Your task to perform on an android device: toggle notification dots Image 0: 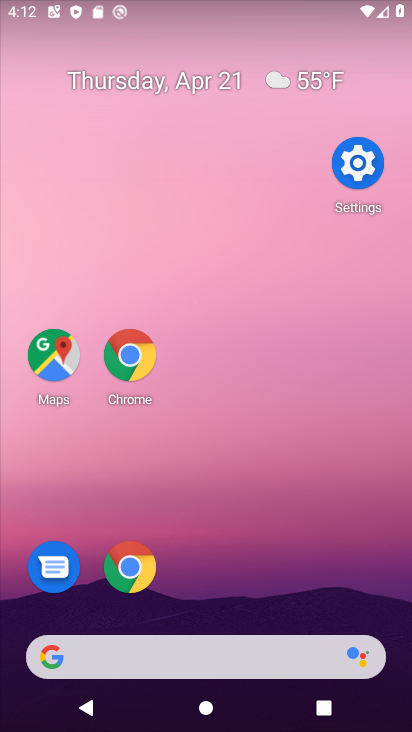
Step 0: click (223, 92)
Your task to perform on an android device: toggle notification dots Image 1: 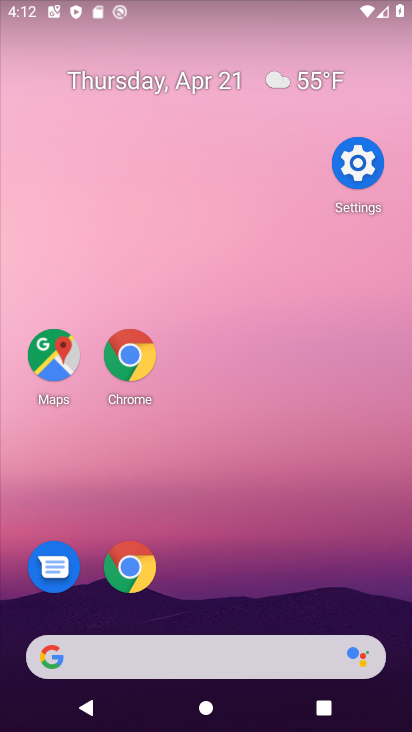
Step 1: drag from (257, 633) to (280, 17)
Your task to perform on an android device: toggle notification dots Image 2: 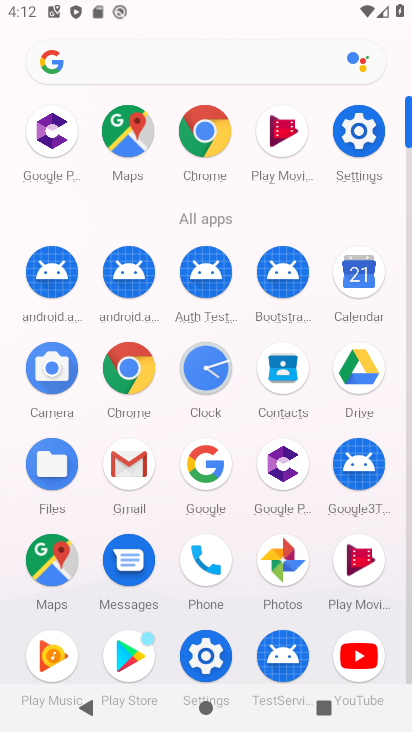
Step 2: drag from (246, 457) to (169, 24)
Your task to perform on an android device: toggle notification dots Image 3: 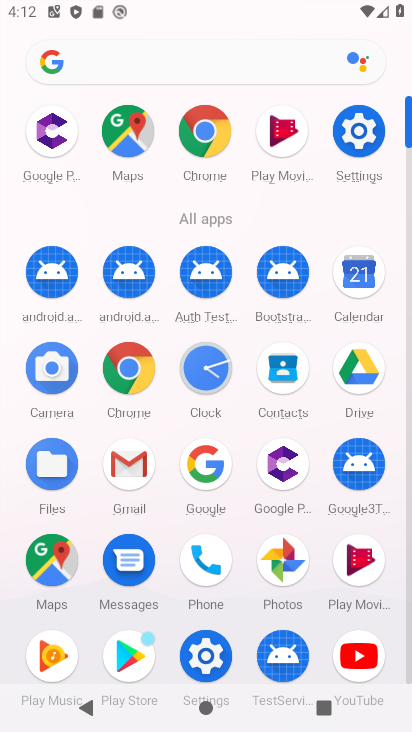
Step 3: click (351, 127)
Your task to perform on an android device: toggle notification dots Image 4: 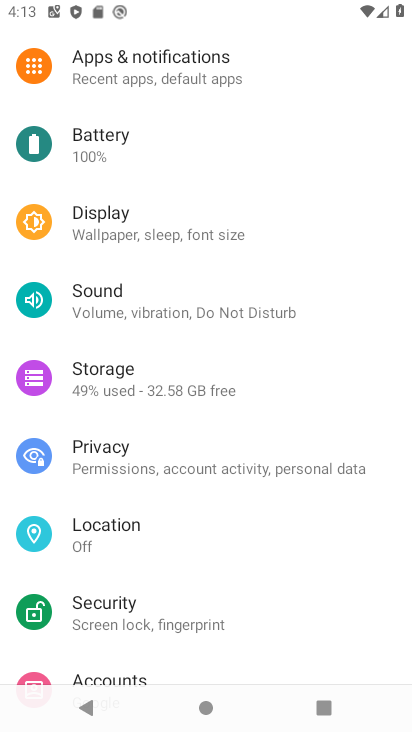
Step 4: click (156, 66)
Your task to perform on an android device: toggle notification dots Image 5: 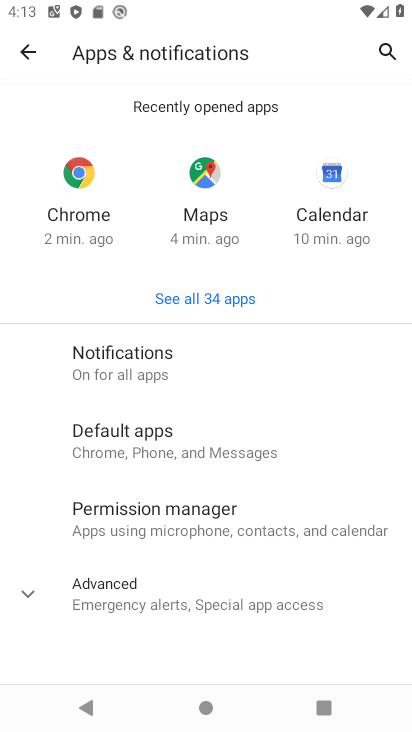
Step 5: drag from (165, 531) to (155, 177)
Your task to perform on an android device: toggle notification dots Image 6: 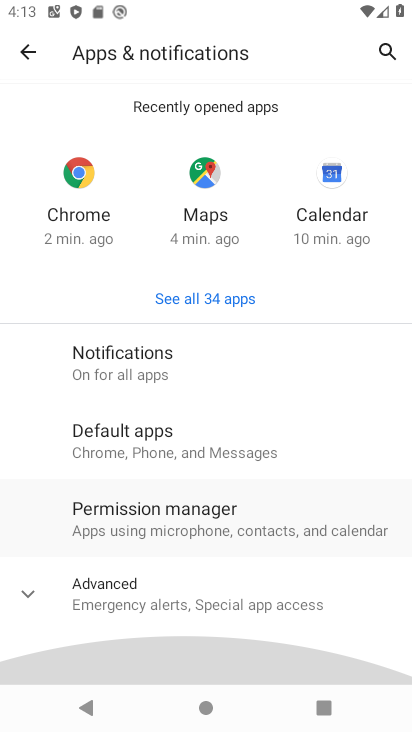
Step 6: drag from (253, 521) to (269, 235)
Your task to perform on an android device: toggle notification dots Image 7: 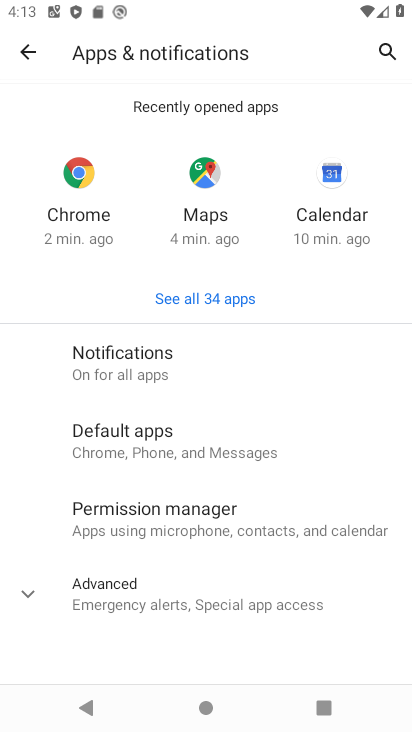
Step 7: click (122, 363)
Your task to perform on an android device: toggle notification dots Image 8: 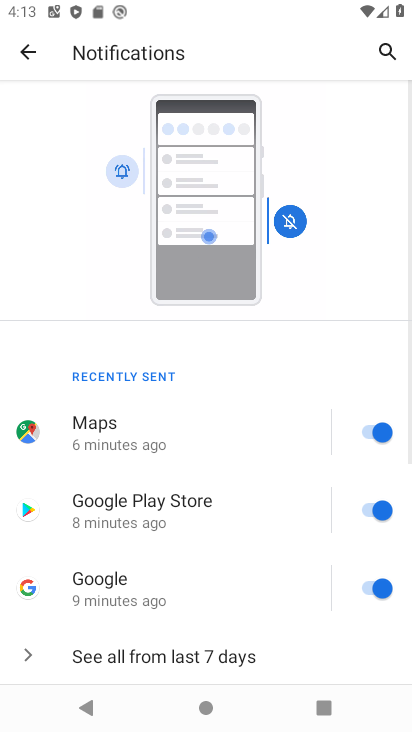
Step 8: drag from (229, 525) to (216, 196)
Your task to perform on an android device: toggle notification dots Image 9: 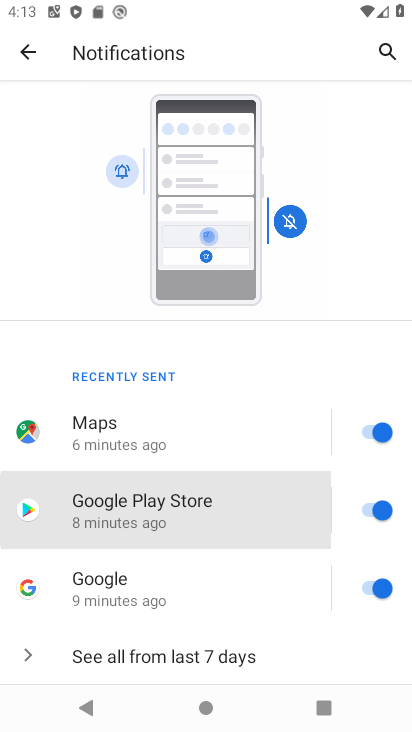
Step 9: drag from (196, 282) to (191, 161)
Your task to perform on an android device: toggle notification dots Image 10: 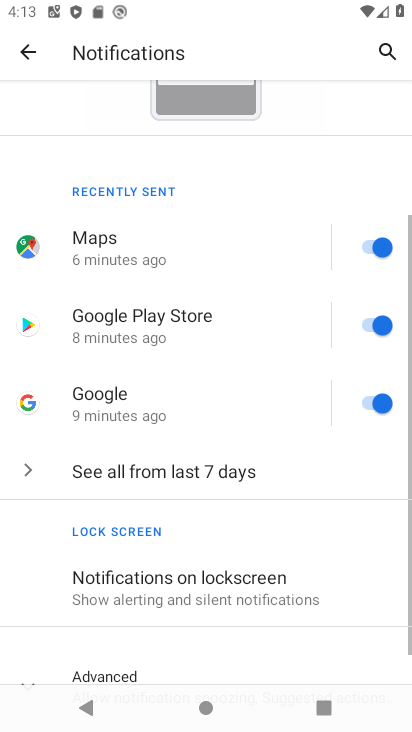
Step 10: drag from (220, 374) to (213, 112)
Your task to perform on an android device: toggle notification dots Image 11: 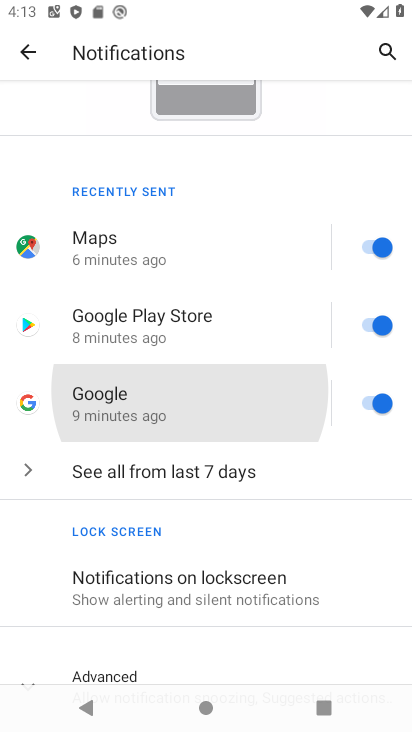
Step 11: click (241, 29)
Your task to perform on an android device: toggle notification dots Image 12: 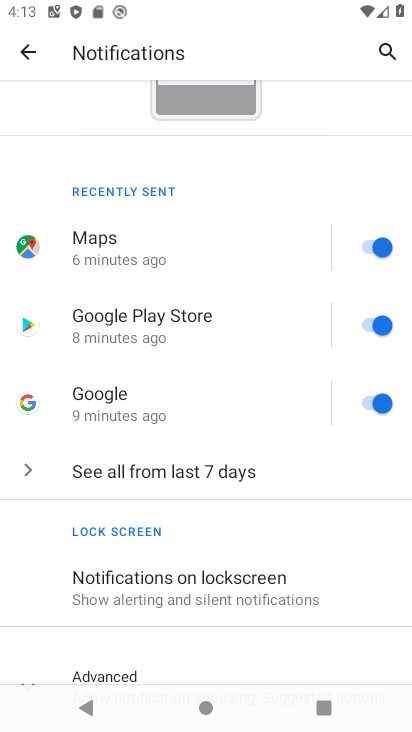
Step 12: drag from (229, 426) to (235, 151)
Your task to perform on an android device: toggle notification dots Image 13: 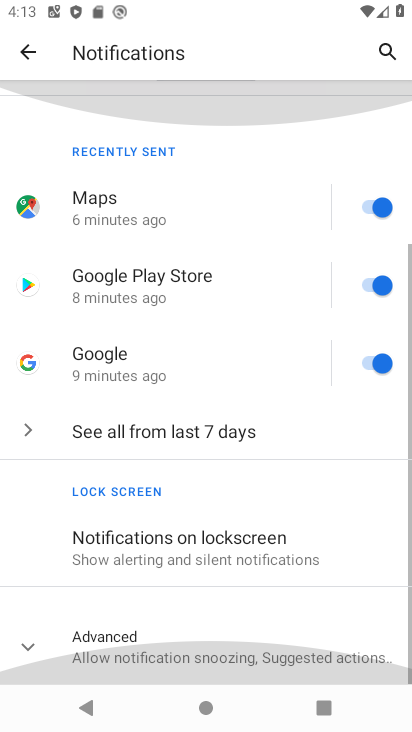
Step 13: drag from (265, 406) to (250, 201)
Your task to perform on an android device: toggle notification dots Image 14: 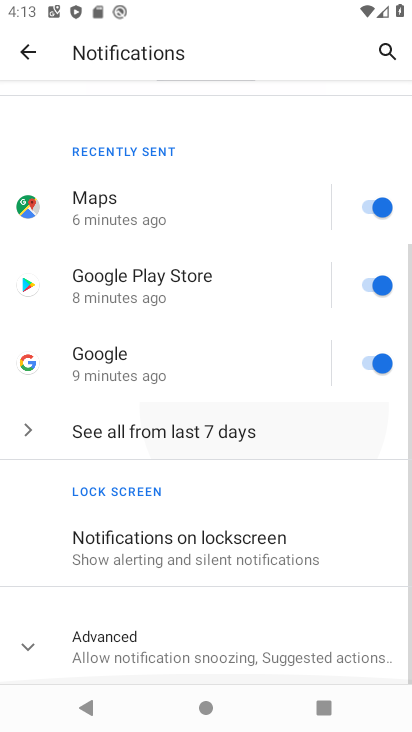
Step 14: drag from (218, 454) to (180, 121)
Your task to perform on an android device: toggle notification dots Image 15: 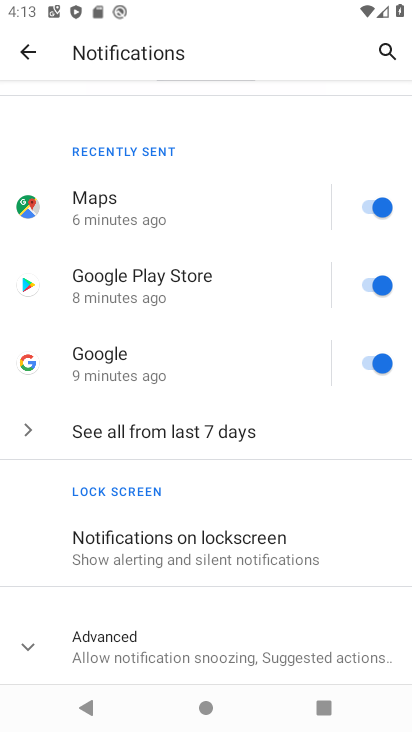
Step 15: click (135, 655)
Your task to perform on an android device: toggle notification dots Image 16: 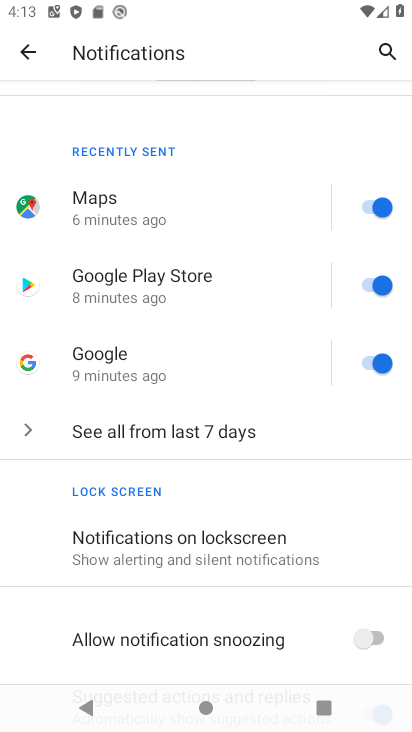
Step 16: drag from (240, 504) to (208, 269)
Your task to perform on an android device: toggle notification dots Image 17: 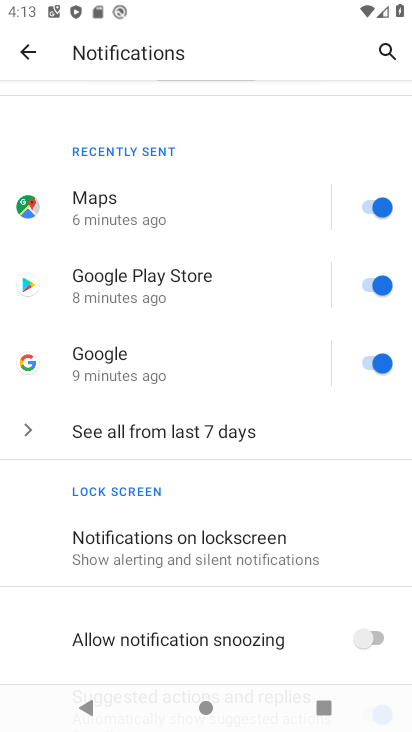
Step 17: drag from (283, 512) to (182, 189)
Your task to perform on an android device: toggle notification dots Image 18: 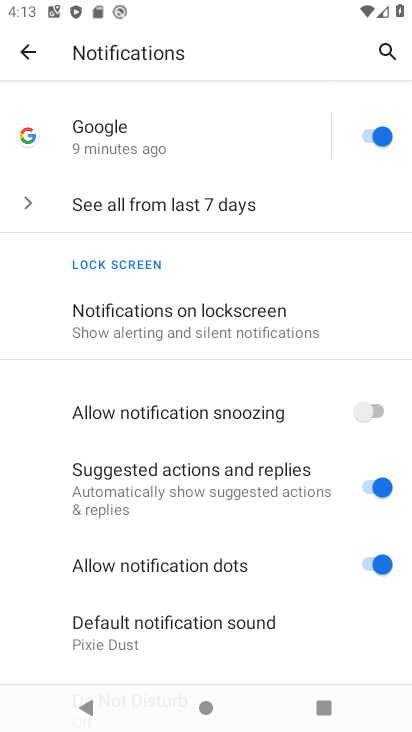
Step 18: drag from (166, 428) to (106, 107)
Your task to perform on an android device: toggle notification dots Image 19: 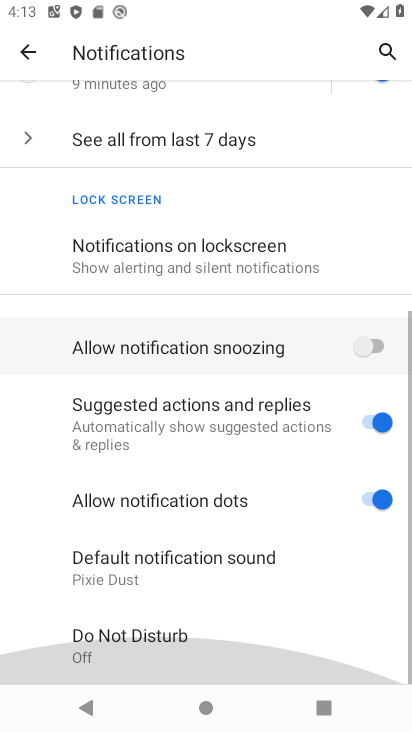
Step 19: drag from (173, 350) to (144, 55)
Your task to perform on an android device: toggle notification dots Image 20: 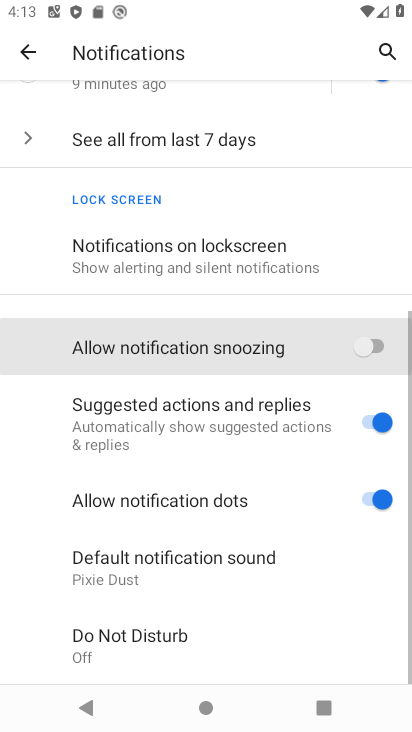
Step 20: drag from (164, 309) to (152, 133)
Your task to perform on an android device: toggle notification dots Image 21: 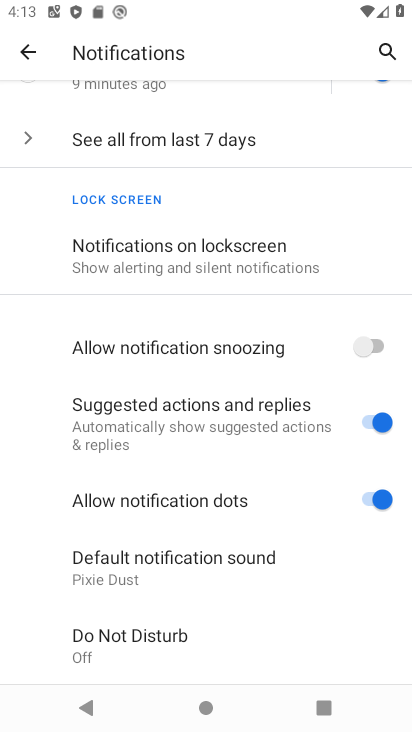
Step 21: click (381, 498)
Your task to perform on an android device: toggle notification dots Image 22: 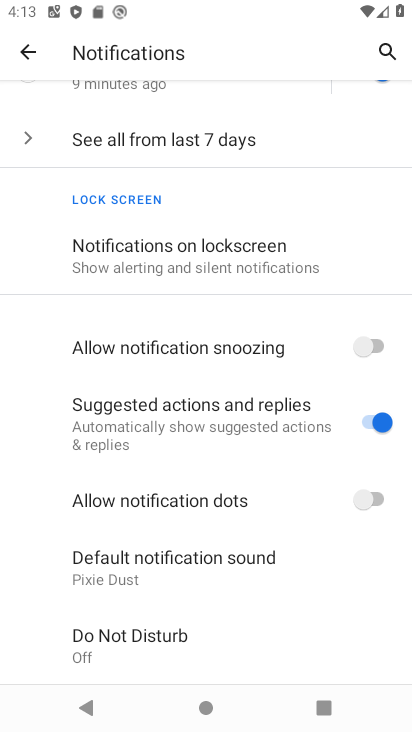
Step 22: task complete